Your task to perform on an android device: turn off location history Image 0: 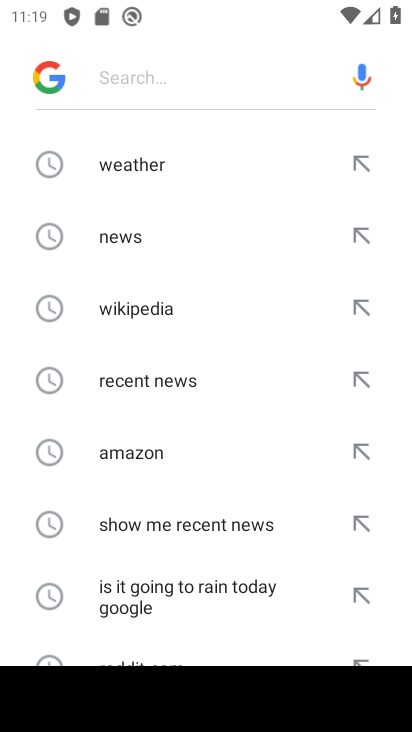
Step 0: press home button
Your task to perform on an android device: turn off location history Image 1: 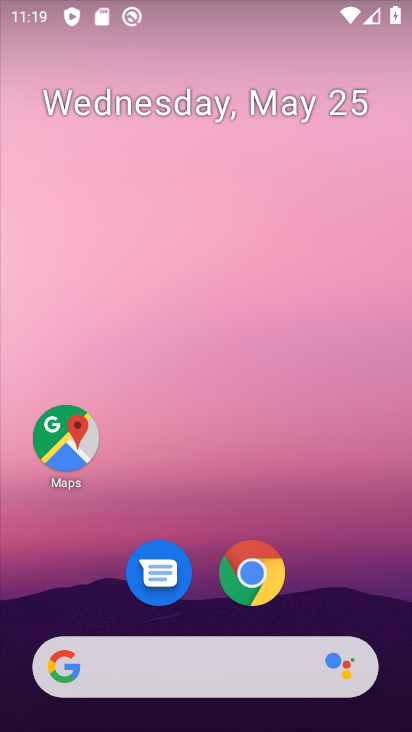
Step 1: drag from (230, 647) to (286, 18)
Your task to perform on an android device: turn off location history Image 2: 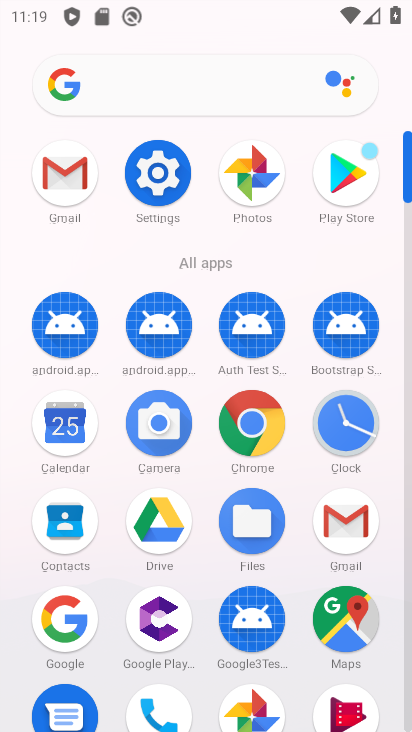
Step 2: click (175, 159)
Your task to perform on an android device: turn off location history Image 3: 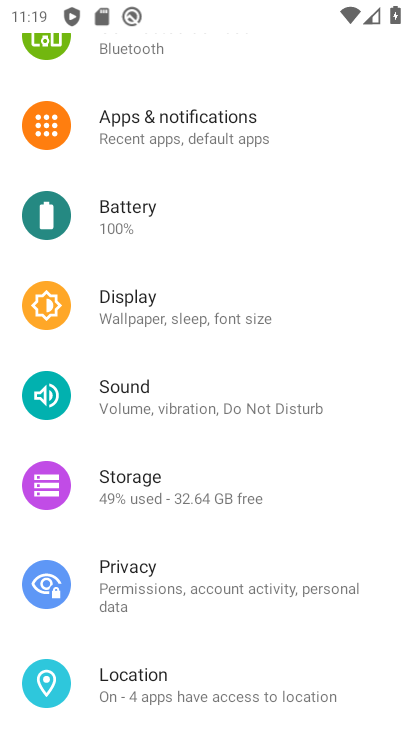
Step 3: click (126, 672)
Your task to perform on an android device: turn off location history Image 4: 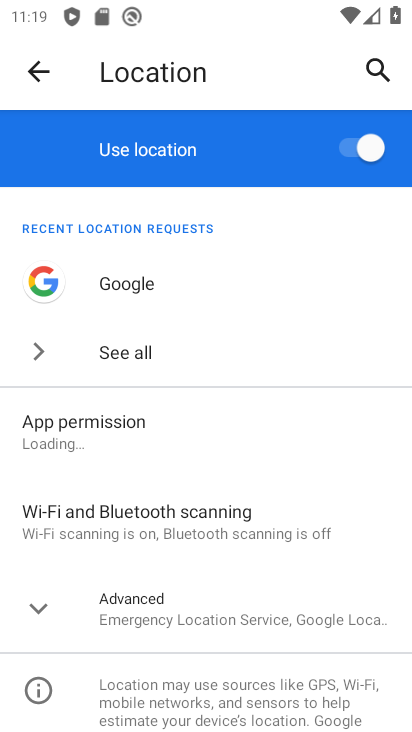
Step 4: click (295, 628)
Your task to perform on an android device: turn off location history Image 5: 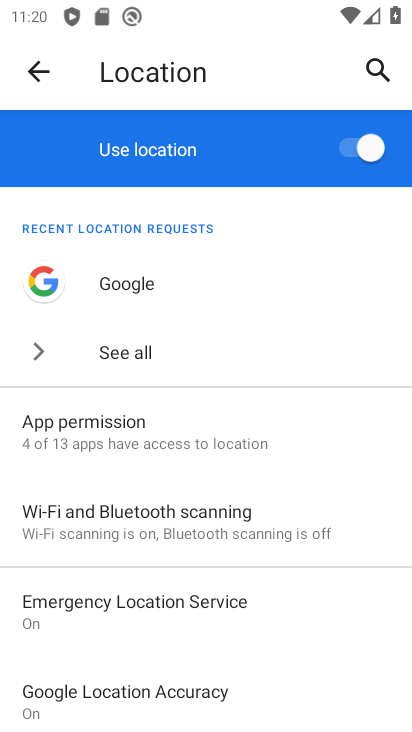
Step 5: drag from (295, 628) to (226, 213)
Your task to perform on an android device: turn off location history Image 6: 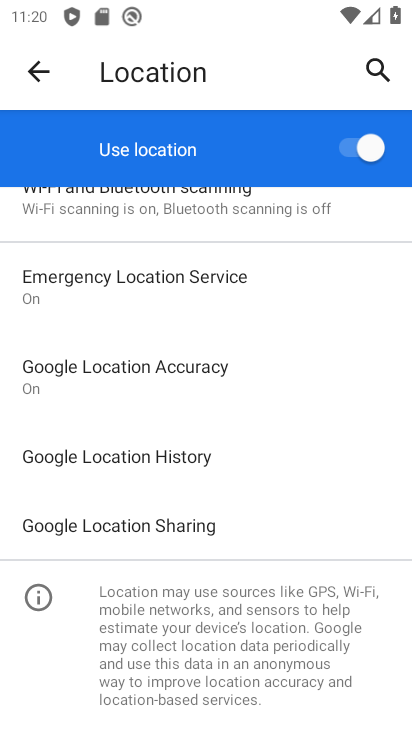
Step 6: click (184, 463)
Your task to perform on an android device: turn off location history Image 7: 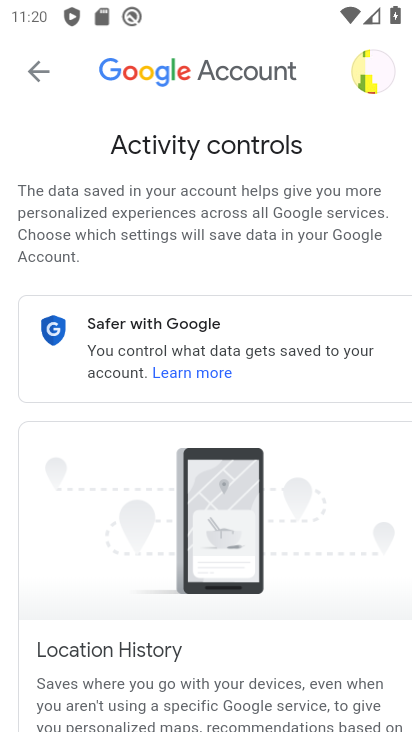
Step 7: task complete